Your task to perform on an android device: check data usage Image 0: 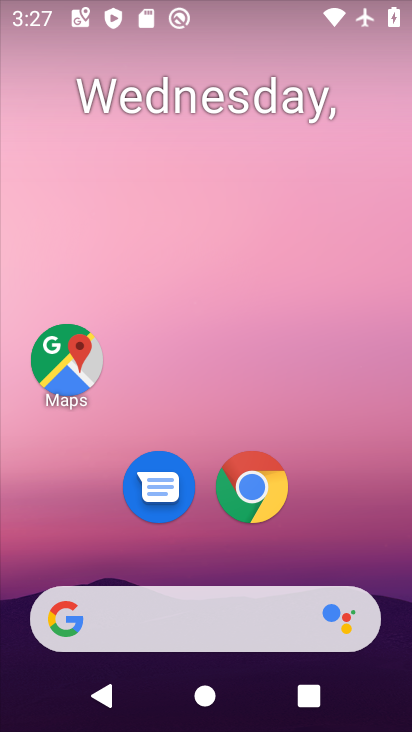
Step 0: drag from (337, 543) to (310, 11)
Your task to perform on an android device: check data usage Image 1: 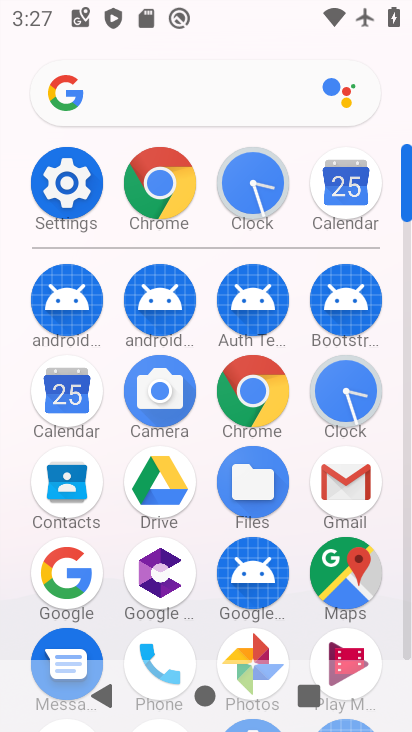
Step 1: click (53, 180)
Your task to perform on an android device: check data usage Image 2: 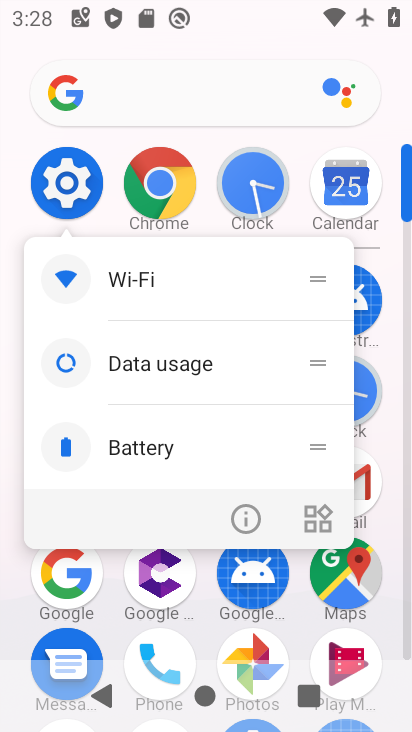
Step 2: click (50, 178)
Your task to perform on an android device: check data usage Image 3: 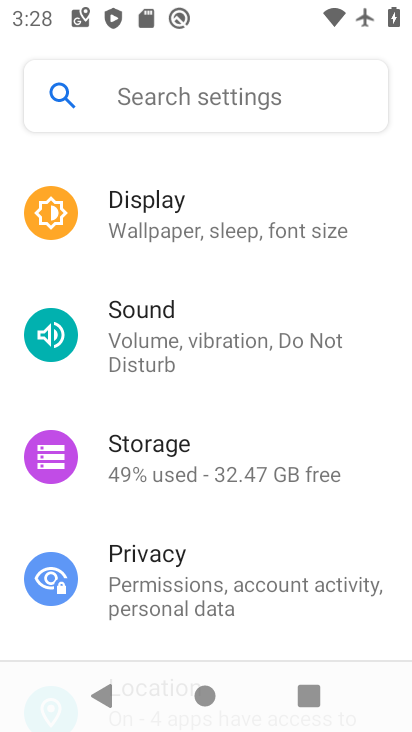
Step 3: drag from (263, 553) to (250, 227)
Your task to perform on an android device: check data usage Image 4: 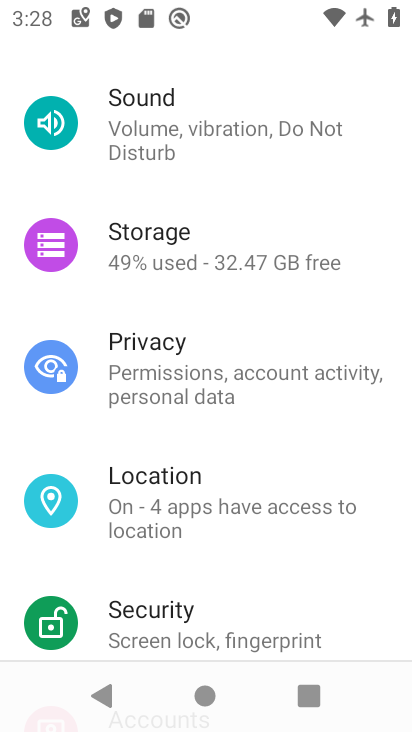
Step 4: drag from (235, 181) to (281, 578)
Your task to perform on an android device: check data usage Image 5: 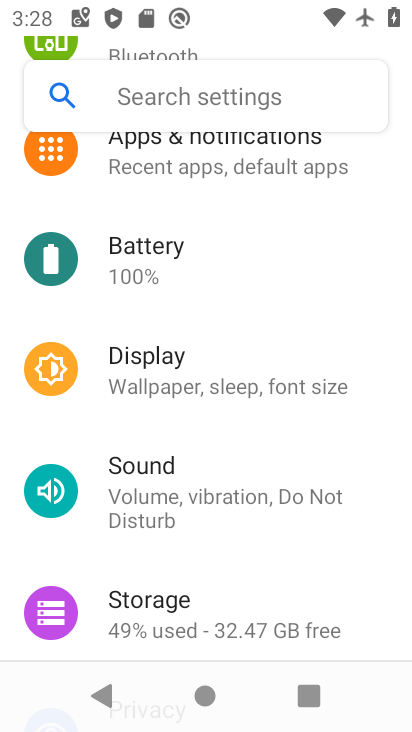
Step 5: drag from (216, 187) to (222, 562)
Your task to perform on an android device: check data usage Image 6: 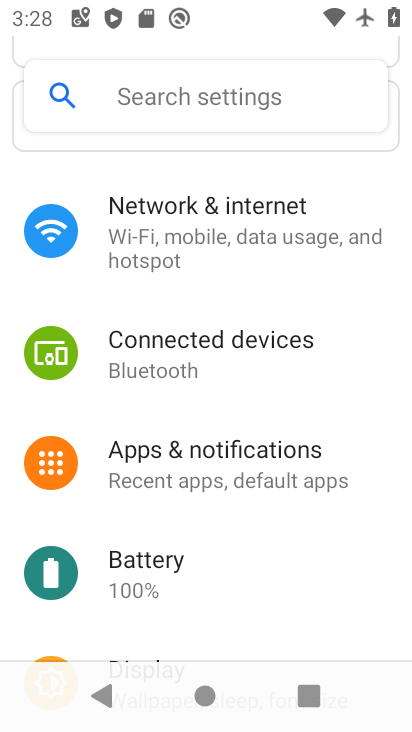
Step 6: drag from (191, 215) to (197, 512)
Your task to perform on an android device: check data usage Image 7: 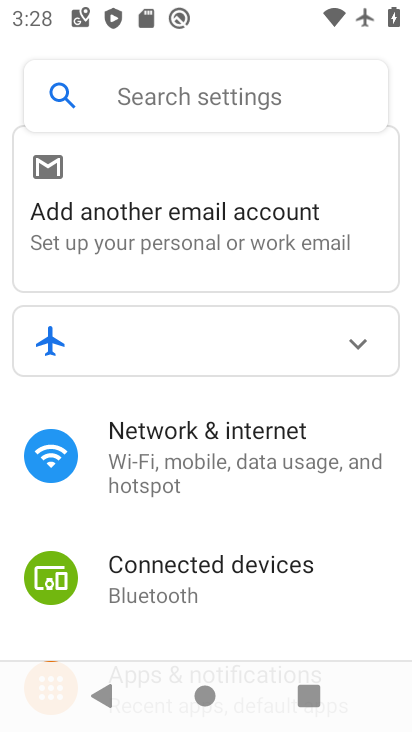
Step 7: click (188, 457)
Your task to perform on an android device: check data usage Image 8: 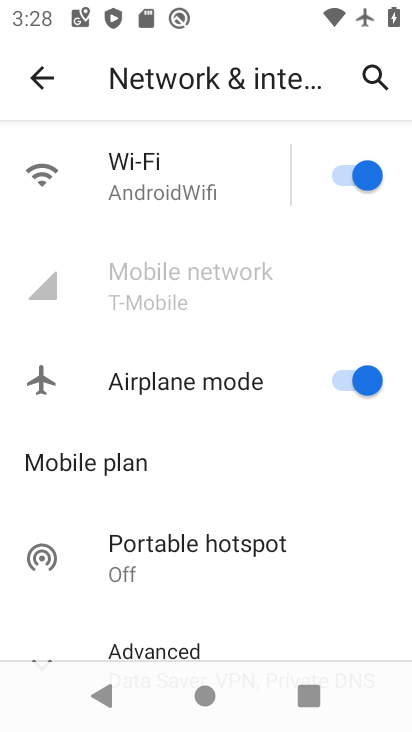
Step 8: task complete